Your task to perform on an android device: change notification settings in the gmail app Image 0: 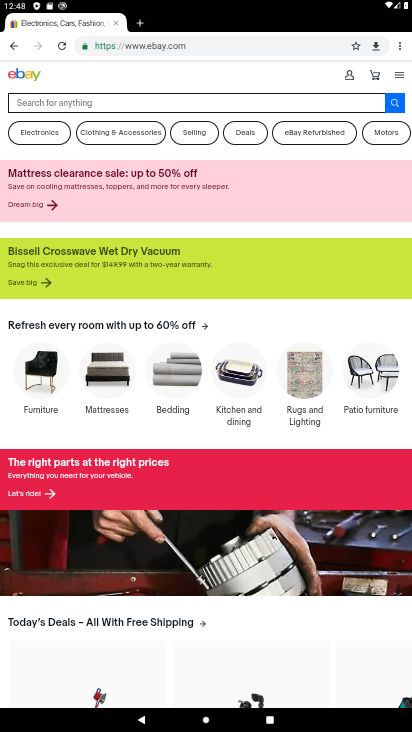
Step 0: task complete